Your task to perform on an android device: turn off translation in the chrome app Image 0: 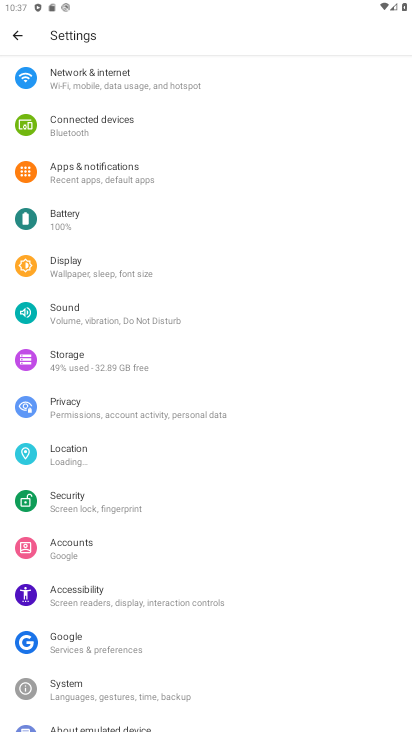
Step 0: press home button
Your task to perform on an android device: turn off translation in the chrome app Image 1: 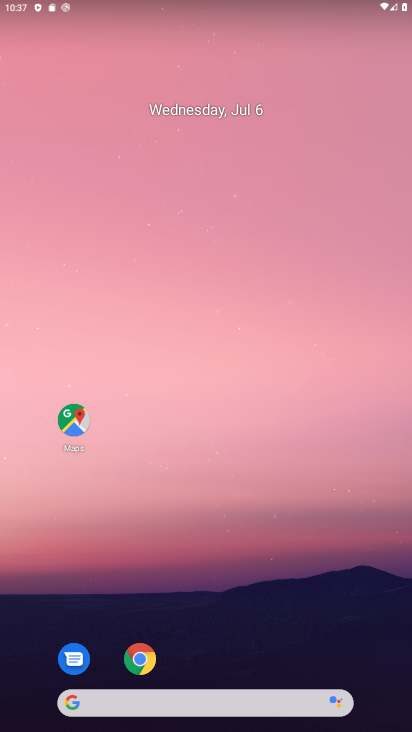
Step 1: click (142, 663)
Your task to perform on an android device: turn off translation in the chrome app Image 2: 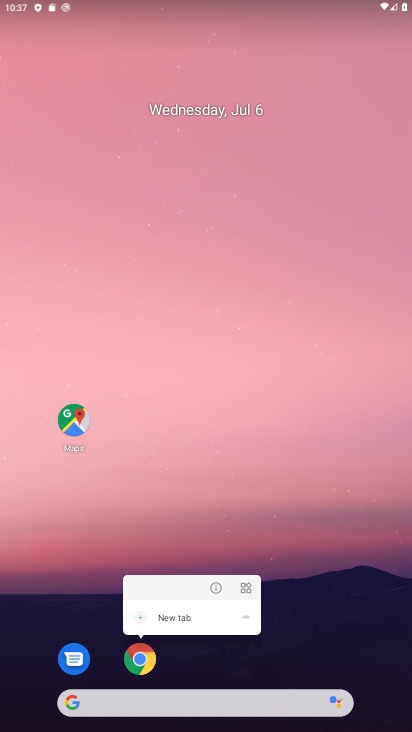
Step 2: click (147, 649)
Your task to perform on an android device: turn off translation in the chrome app Image 3: 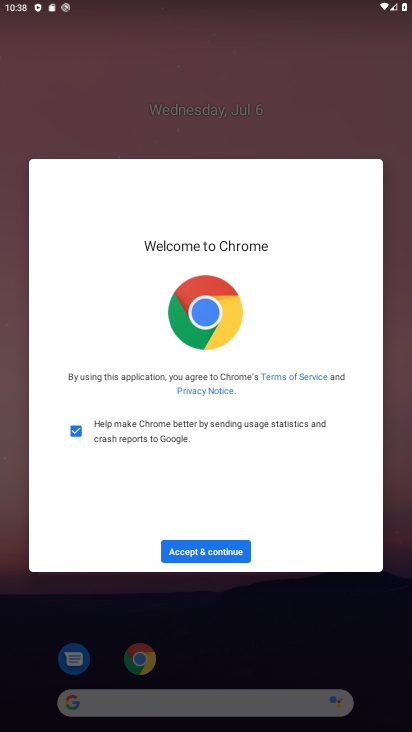
Step 3: click (209, 549)
Your task to perform on an android device: turn off translation in the chrome app Image 4: 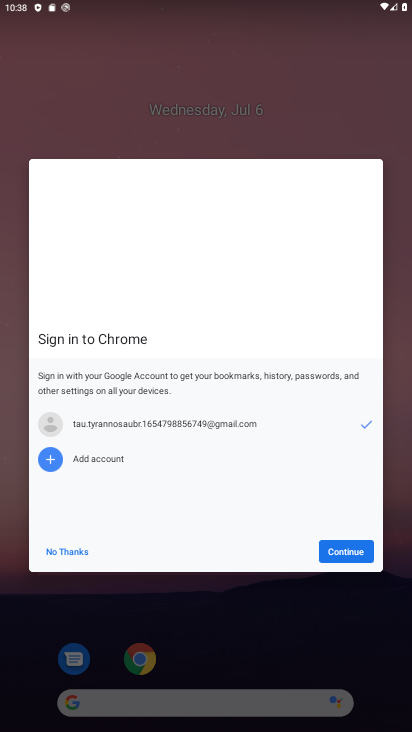
Step 4: click (364, 548)
Your task to perform on an android device: turn off translation in the chrome app Image 5: 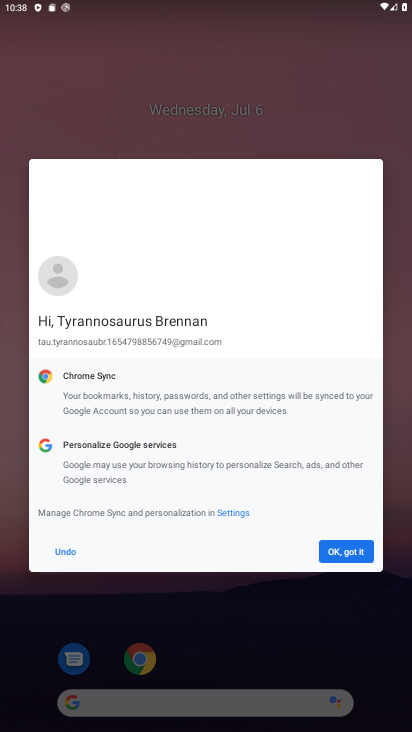
Step 5: click (354, 542)
Your task to perform on an android device: turn off translation in the chrome app Image 6: 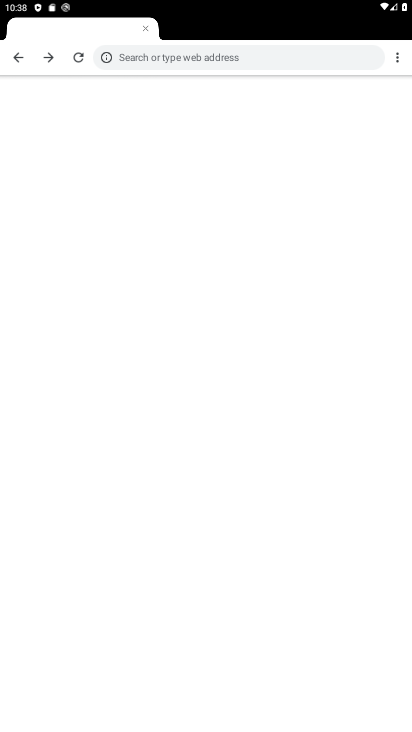
Step 6: click (391, 56)
Your task to perform on an android device: turn off translation in the chrome app Image 7: 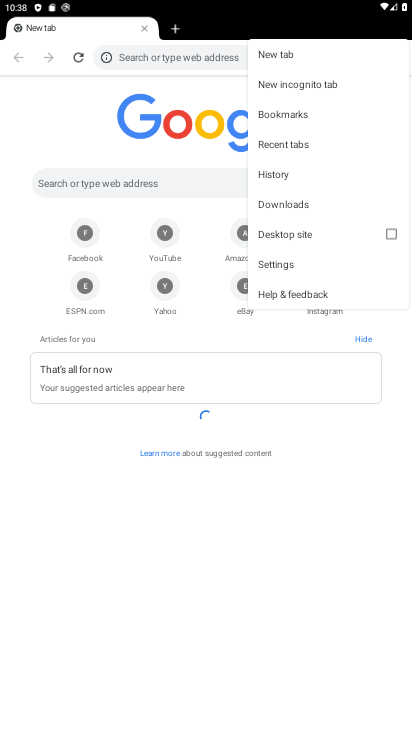
Step 7: click (402, 53)
Your task to perform on an android device: turn off translation in the chrome app Image 8: 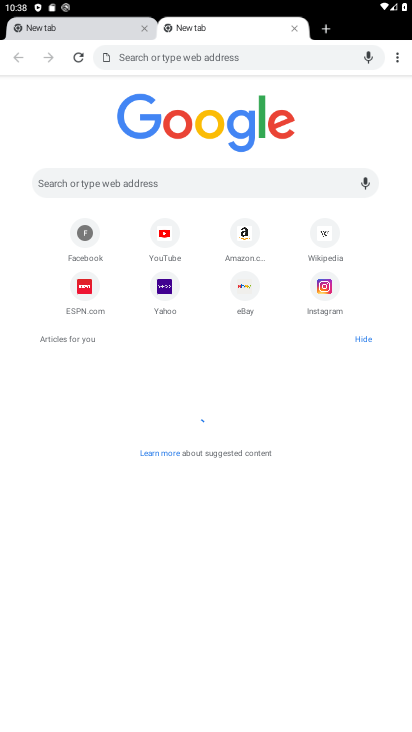
Step 8: click (311, 256)
Your task to perform on an android device: turn off translation in the chrome app Image 9: 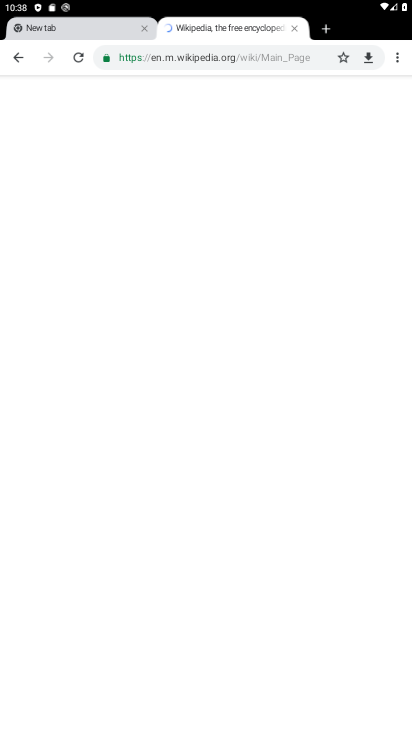
Step 9: click (395, 58)
Your task to perform on an android device: turn off translation in the chrome app Image 10: 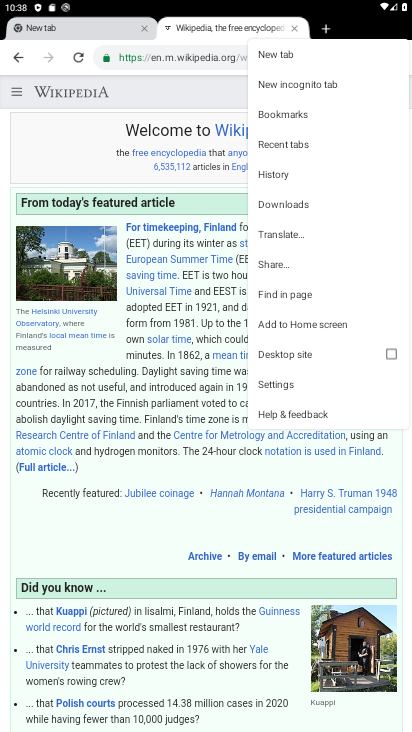
Step 10: click (287, 387)
Your task to perform on an android device: turn off translation in the chrome app Image 11: 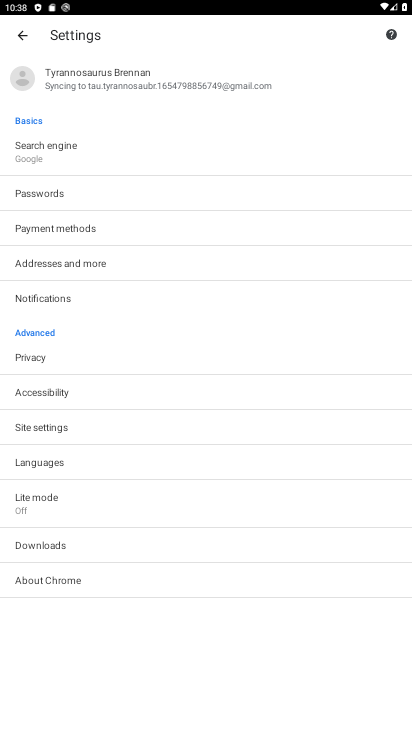
Step 11: click (100, 469)
Your task to perform on an android device: turn off translation in the chrome app Image 12: 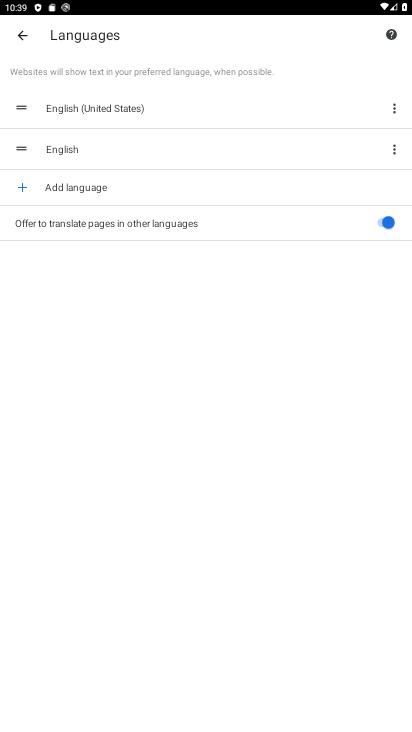
Step 12: click (379, 224)
Your task to perform on an android device: turn off translation in the chrome app Image 13: 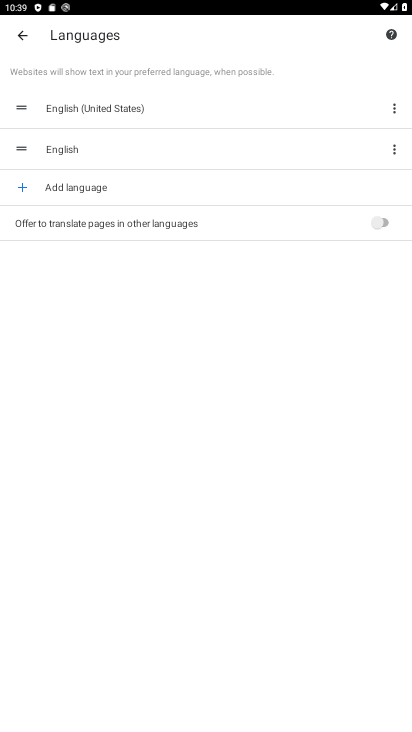
Step 13: task complete